Your task to perform on an android device: Open Google Image 0: 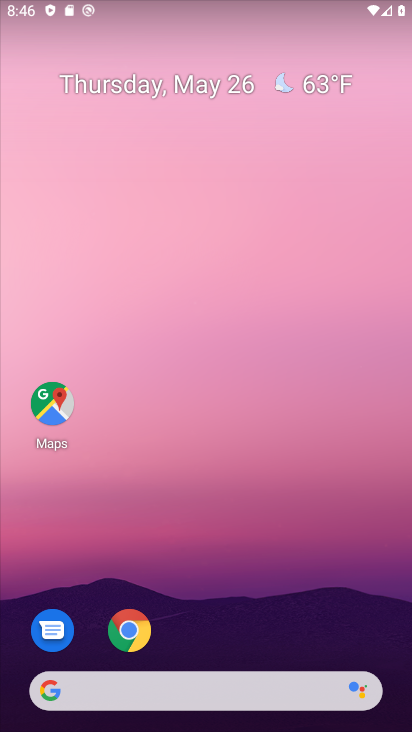
Step 0: drag from (266, 657) to (268, 237)
Your task to perform on an android device: Open Google Image 1: 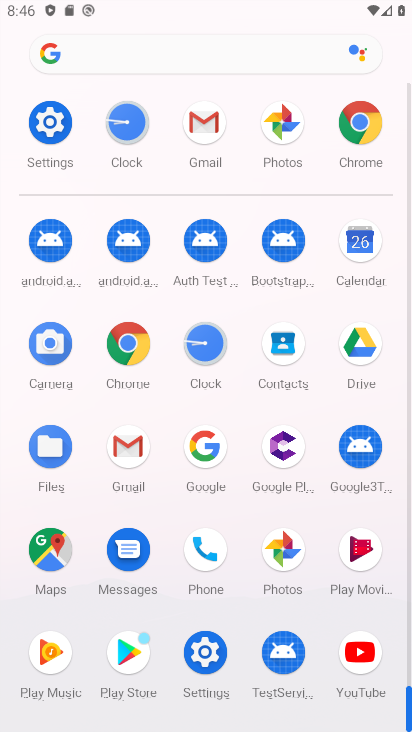
Step 1: click (195, 453)
Your task to perform on an android device: Open Google Image 2: 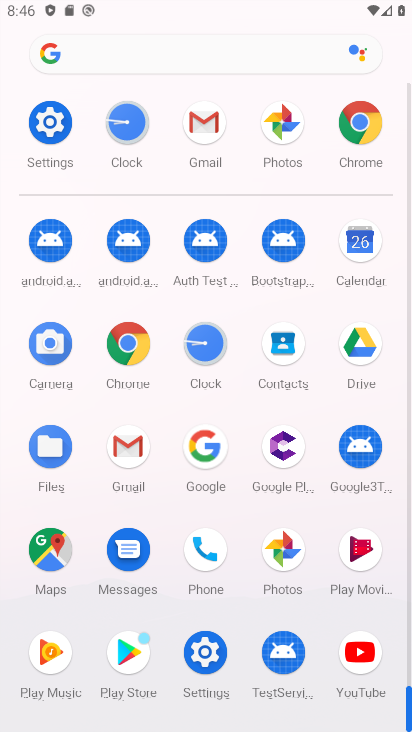
Step 2: click (195, 453)
Your task to perform on an android device: Open Google Image 3: 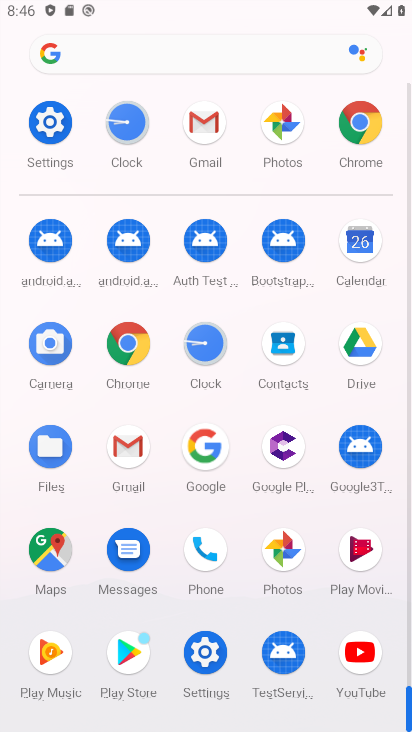
Step 3: click (195, 453)
Your task to perform on an android device: Open Google Image 4: 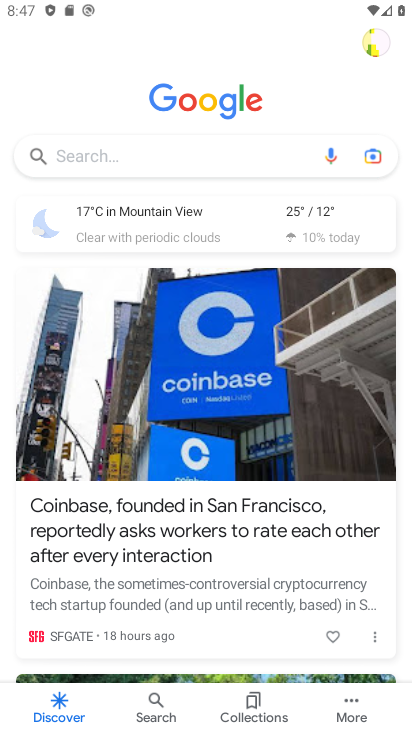
Step 4: task complete